Your task to perform on an android device: turn off improve location accuracy Image 0: 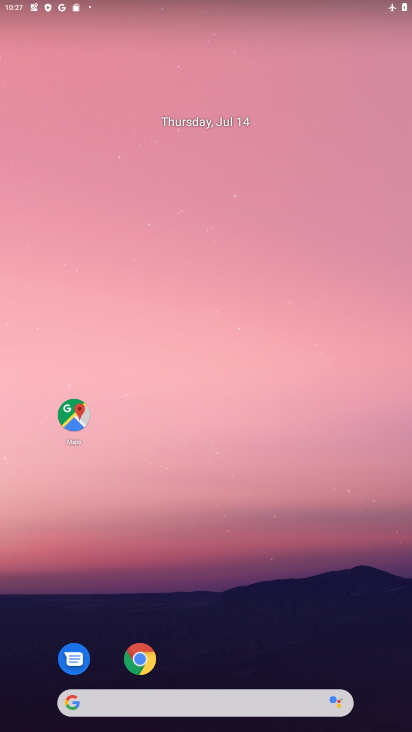
Step 0: drag from (326, 653) to (300, 237)
Your task to perform on an android device: turn off improve location accuracy Image 1: 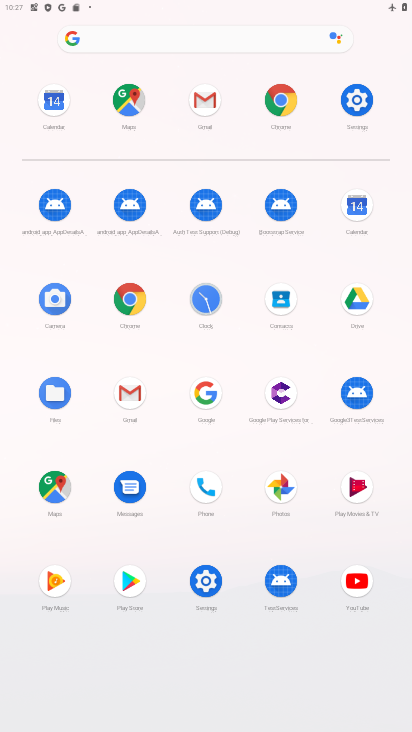
Step 1: click (346, 101)
Your task to perform on an android device: turn off improve location accuracy Image 2: 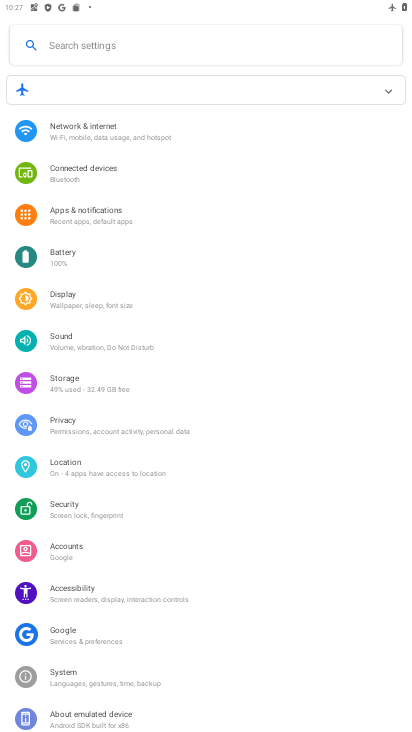
Step 2: click (103, 472)
Your task to perform on an android device: turn off improve location accuracy Image 3: 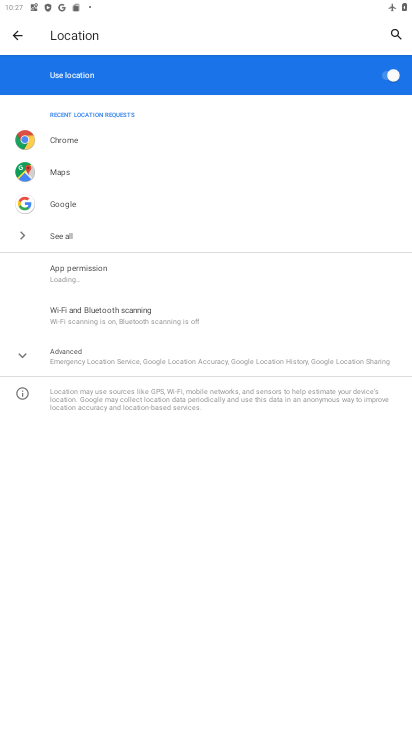
Step 3: click (127, 359)
Your task to perform on an android device: turn off improve location accuracy Image 4: 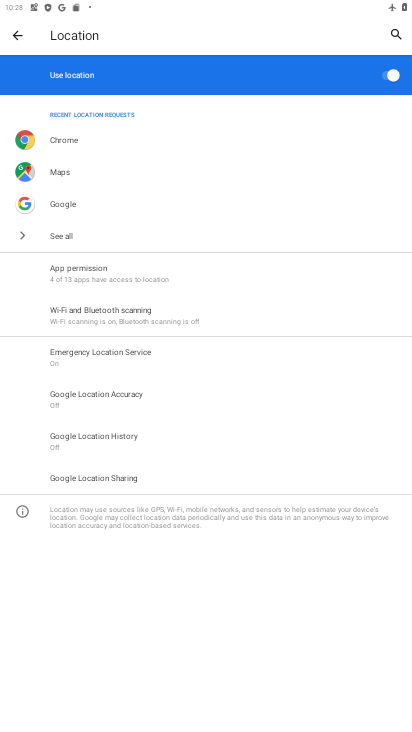
Step 4: click (101, 391)
Your task to perform on an android device: turn off improve location accuracy Image 5: 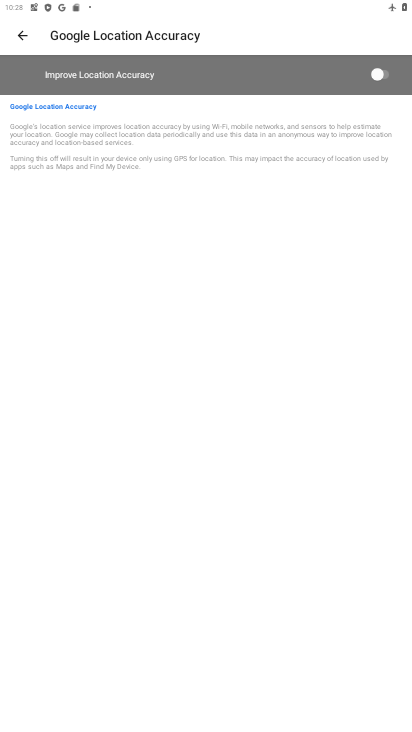
Step 5: task complete